Your task to perform on an android device: Toggle the flashlight Image 0: 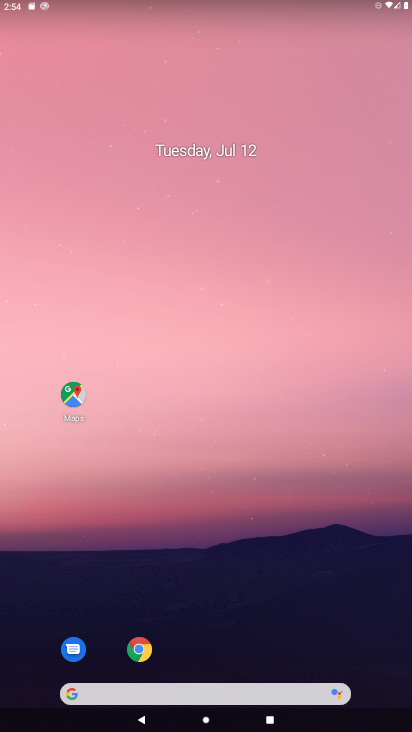
Step 0: drag from (264, 638) to (201, 70)
Your task to perform on an android device: Toggle the flashlight Image 1: 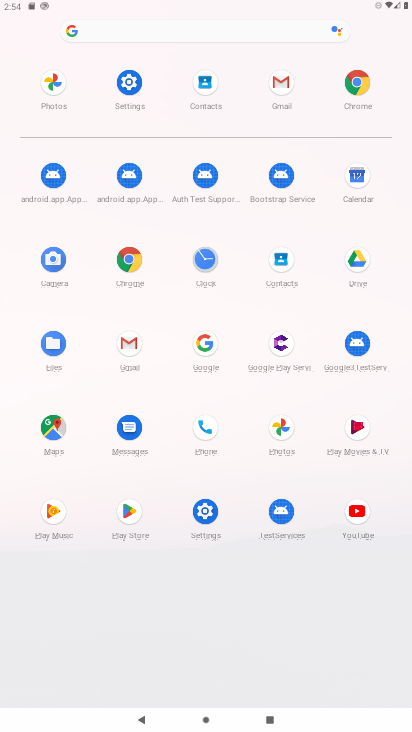
Step 1: click (136, 105)
Your task to perform on an android device: Toggle the flashlight Image 2: 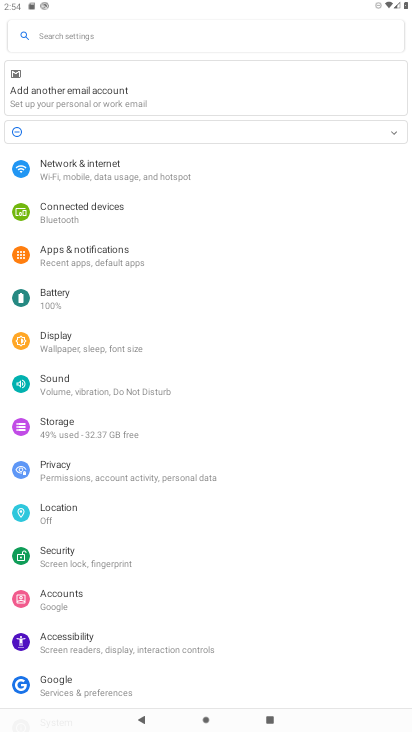
Step 2: click (153, 381)
Your task to perform on an android device: Toggle the flashlight Image 3: 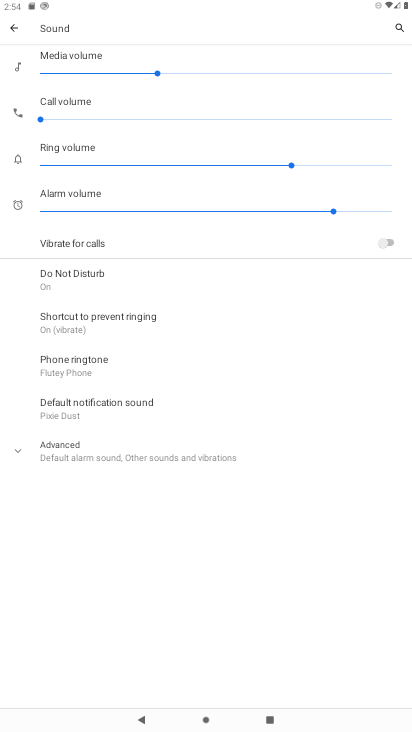
Step 3: task complete